Your task to perform on an android device: Do I have any events today? Image 0: 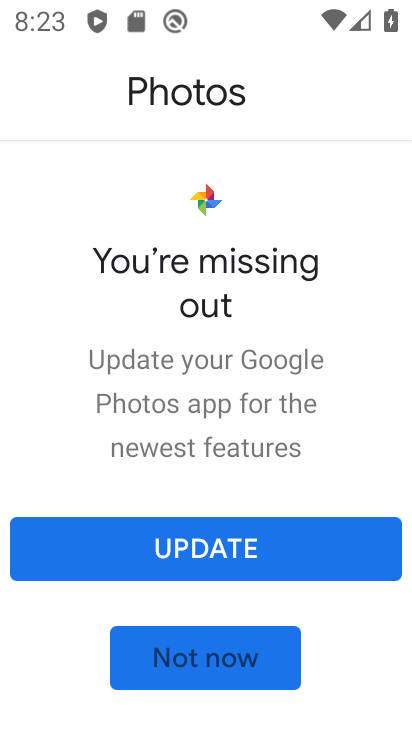
Step 0: press home button
Your task to perform on an android device: Do I have any events today? Image 1: 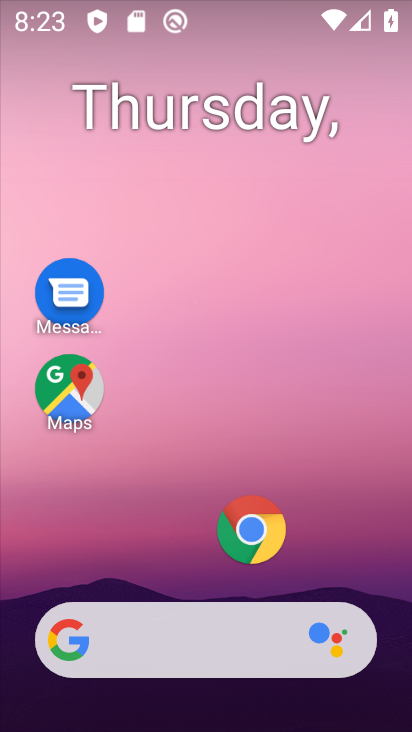
Step 1: click (192, 144)
Your task to perform on an android device: Do I have any events today? Image 2: 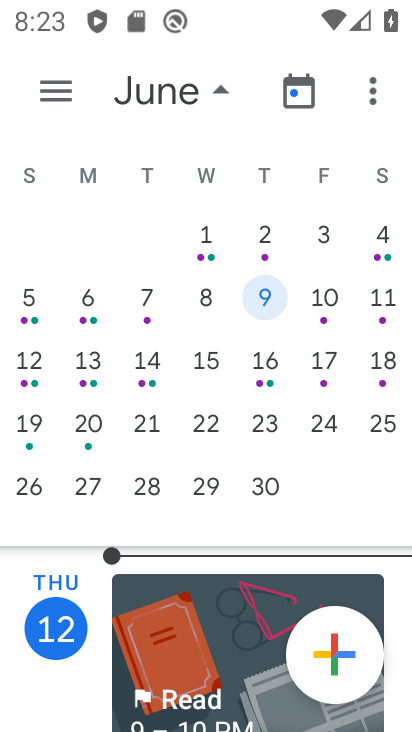
Step 2: click (165, 119)
Your task to perform on an android device: Do I have any events today? Image 3: 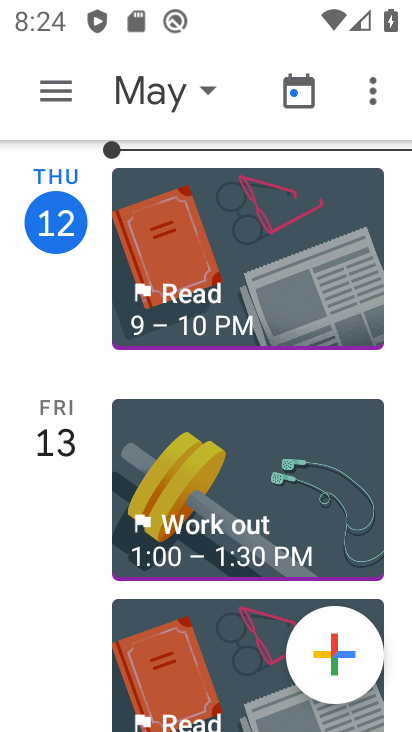
Step 3: click (212, 325)
Your task to perform on an android device: Do I have any events today? Image 4: 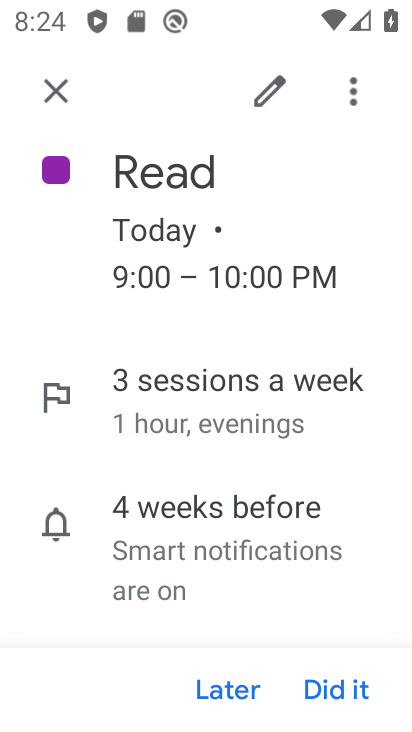
Step 4: task complete